Your task to perform on an android device: delete the emails in spam in the gmail app Image 0: 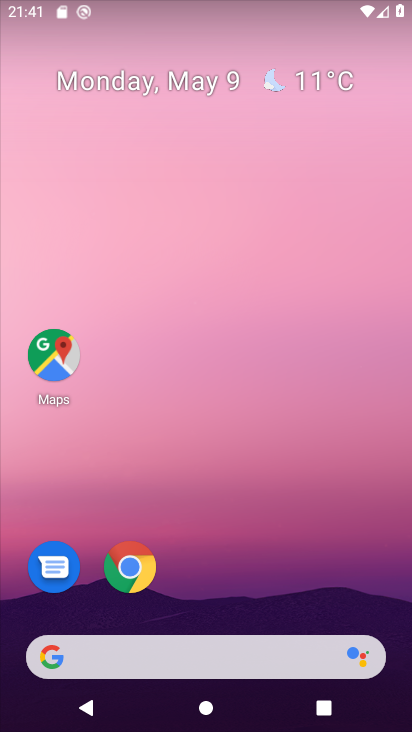
Step 0: drag from (232, 436) to (229, 151)
Your task to perform on an android device: delete the emails in spam in the gmail app Image 1: 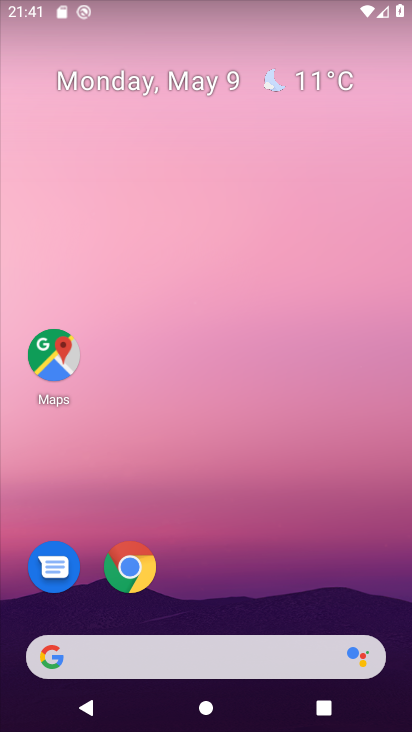
Step 1: drag from (226, 509) to (182, 59)
Your task to perform on an android device: delete the emails in spam in the gmail app Image 2: 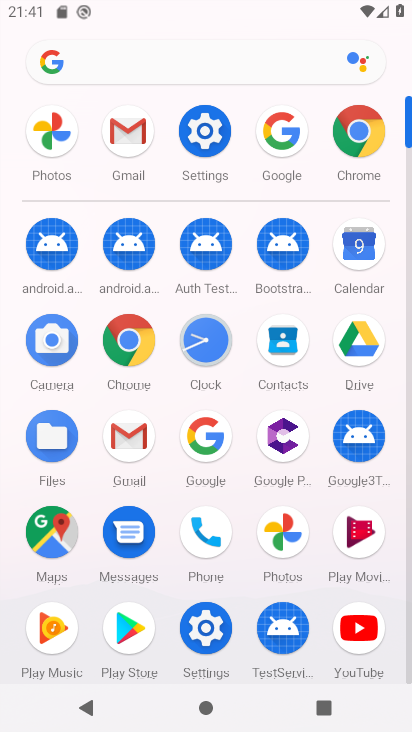
Step 2: click (130, 149)
Your task to perform on an android device: delete the emails in spam in the gmail app Image 3: 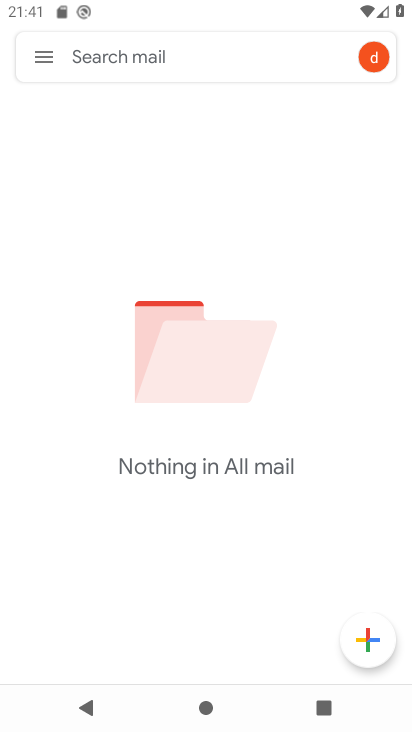
Step 3: click (47, 50)
Your task to perform on an android device: delete the emails in spam in the gmail app Image 4: 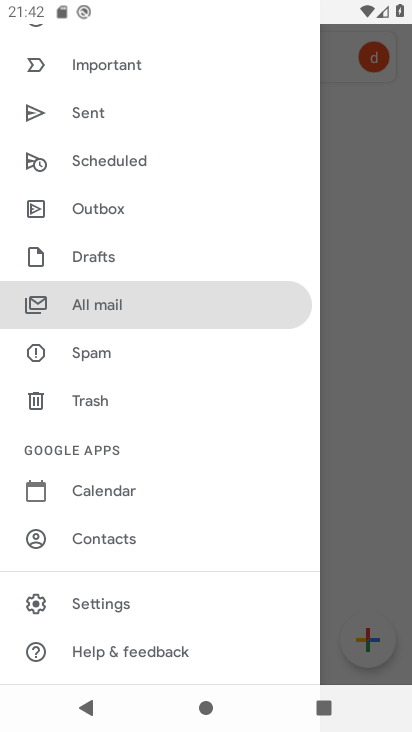
Step 4: click (117, 354)
Your task to perform on an android device: delete the emails in spam in the gmail app Image 5: 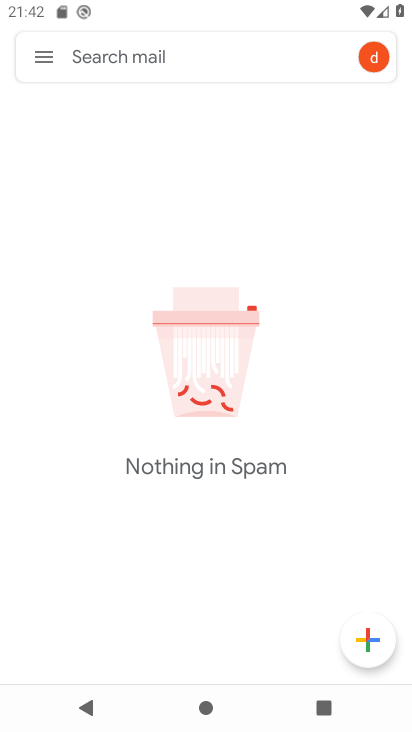
Step 5: task complete